Your task to perform on an android device: Open Youtube and go to "Your channel" Image 0: 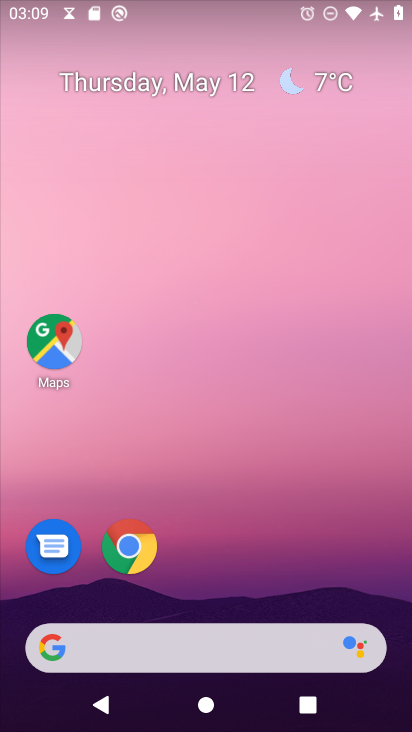
Step 0: drag from (214, 602) to (305, 299)
Your task to perform on an android device: Open Youtube and go to "Your channel" Image 1: 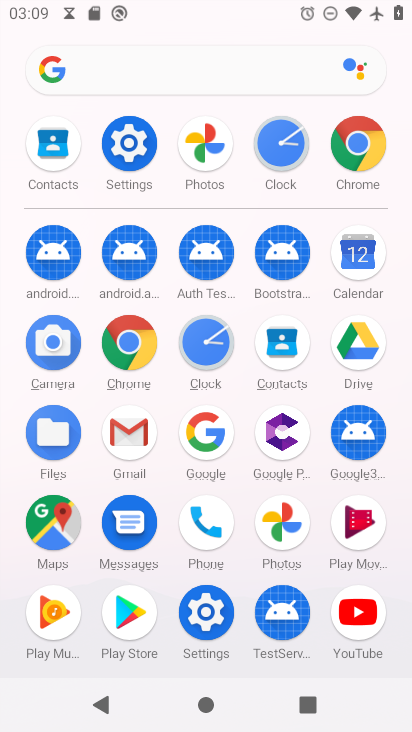
Step 1: click (358, 616)
Your task to perform on an android device: Open Youtube and go to "Your channel" Image 2: 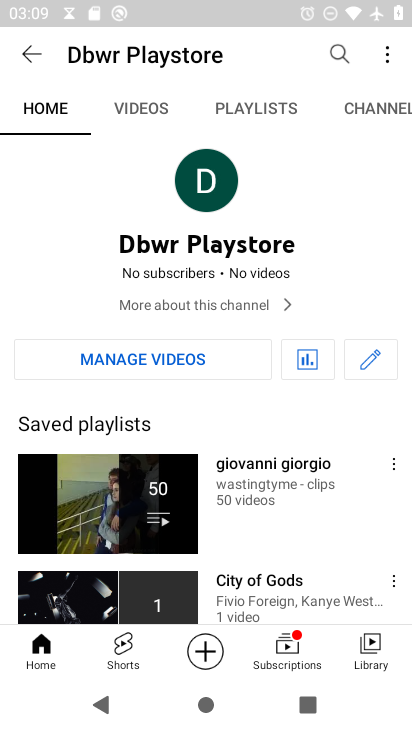
Step 2: task complete